Your task to perform on an android device: Open Google Maps Image 0: 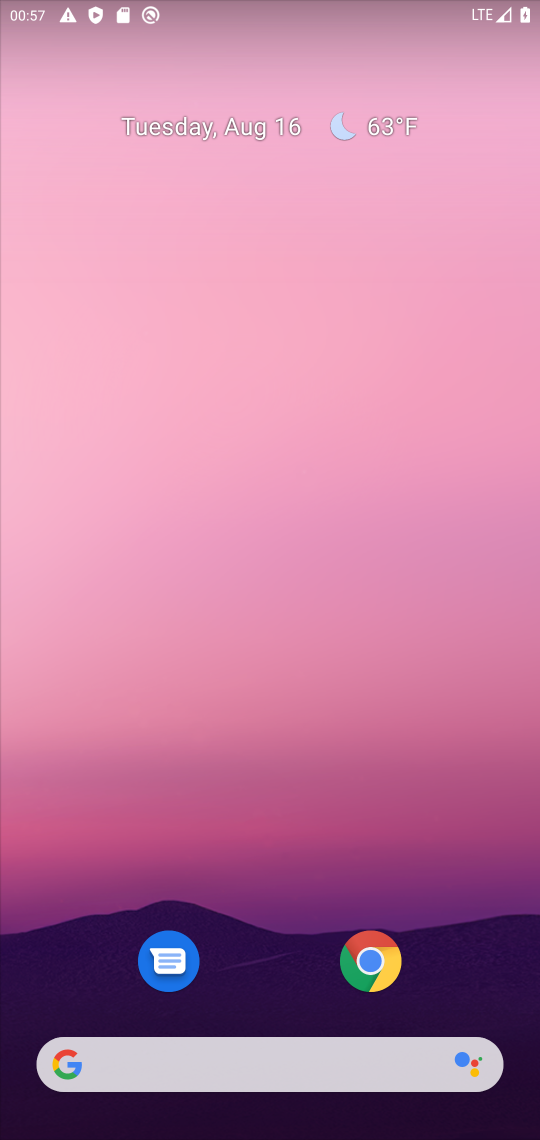
Step 0: press home button
Your task to perform on an android device: Open Google Maps Image 1: 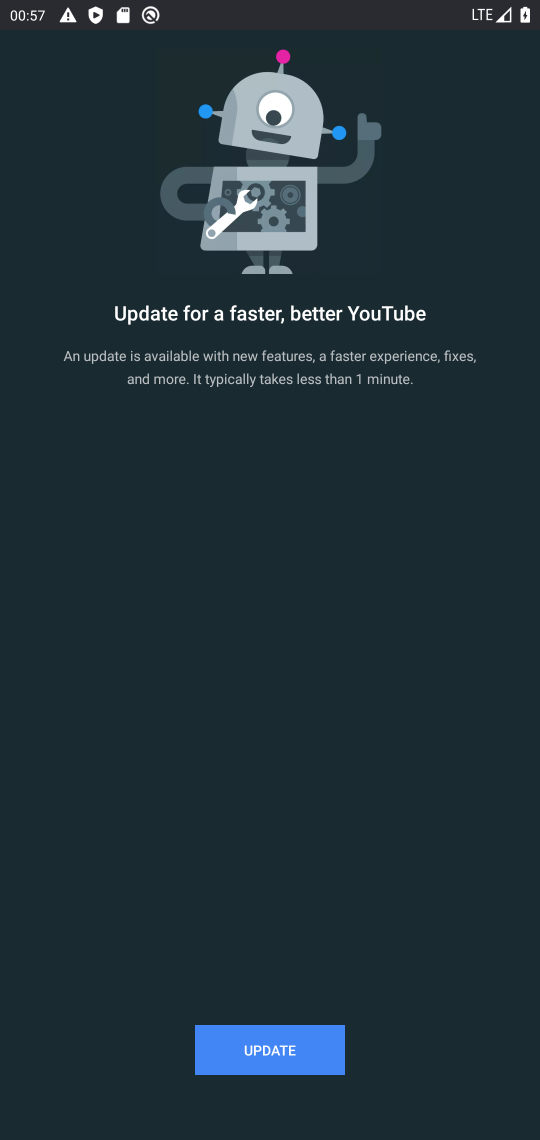
Step 1: press home button
Your task to perform on an android device: Open Google Maps Image 2: 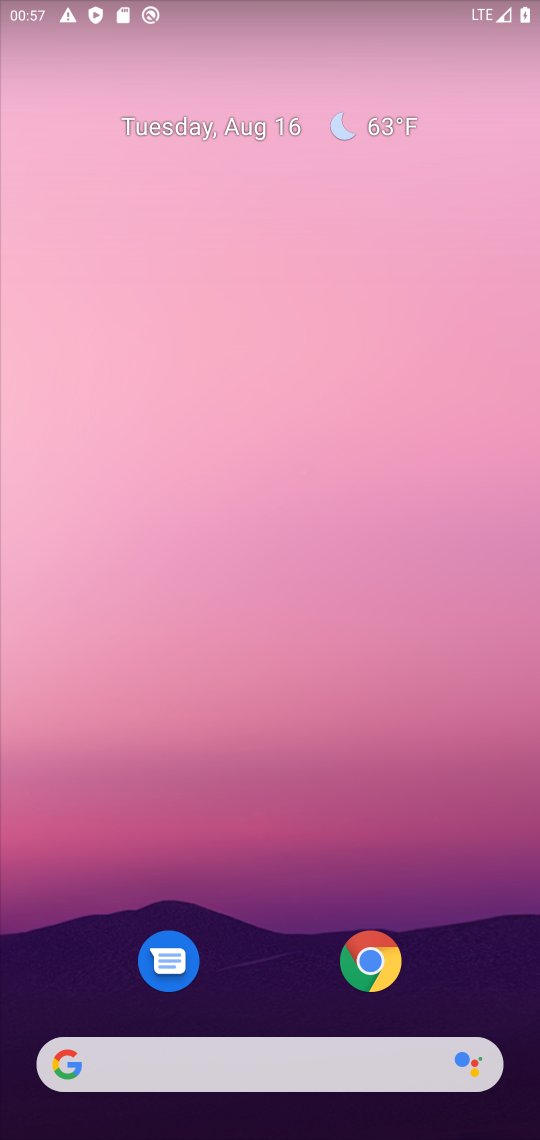
Step 2: press home button
Your task to perform on an android device: Open Google Maps Image 3: 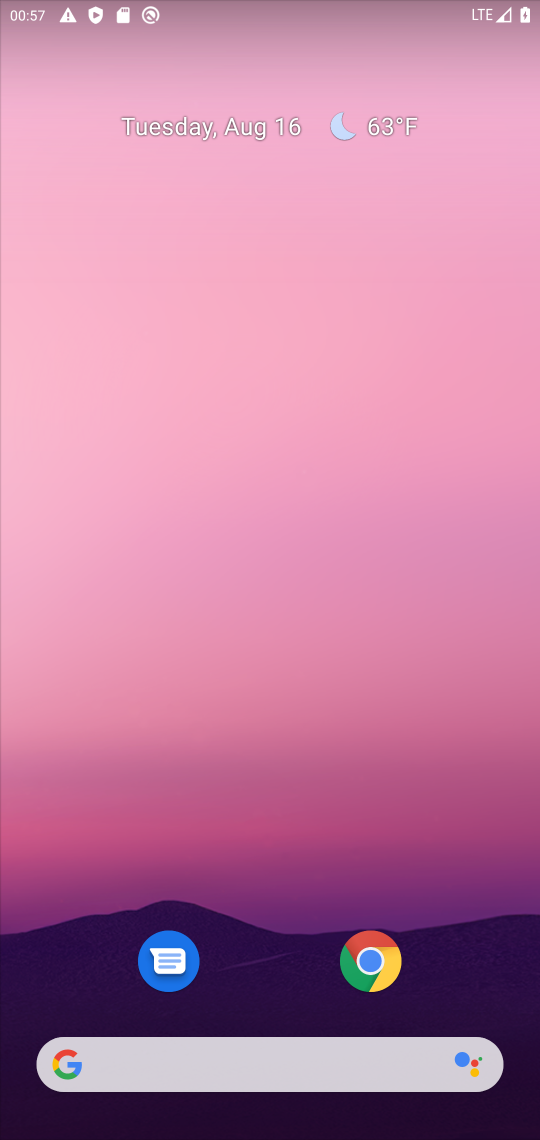
Step 3: drag from (245, 1000) to (288, 24)
Your task to perform on an android device: Open Google Maps Image 4: 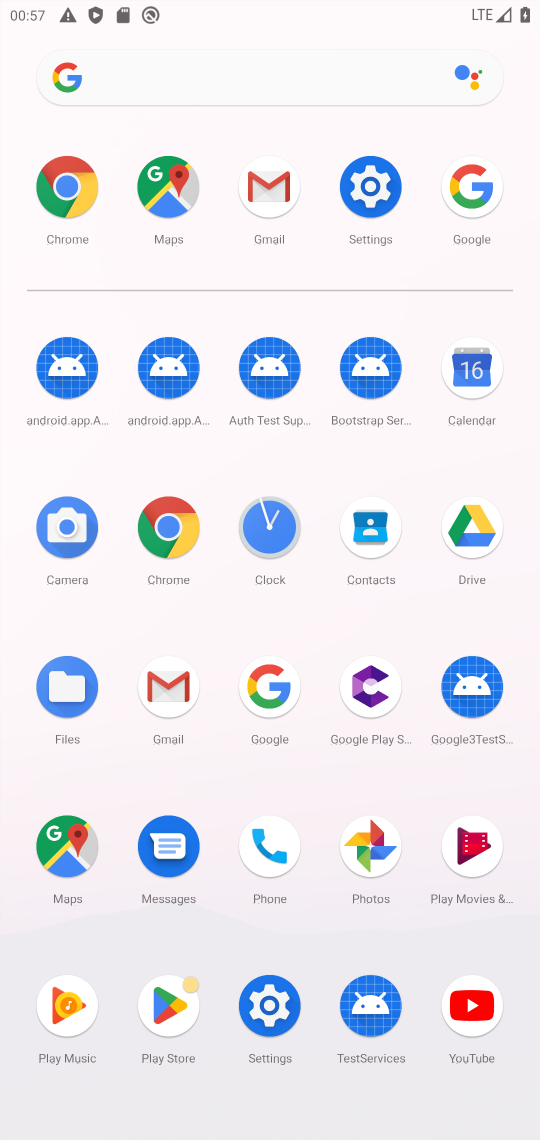
Step 4: click (81, 923)
Your task to perform on an android device: Open Google Maps Image 5: 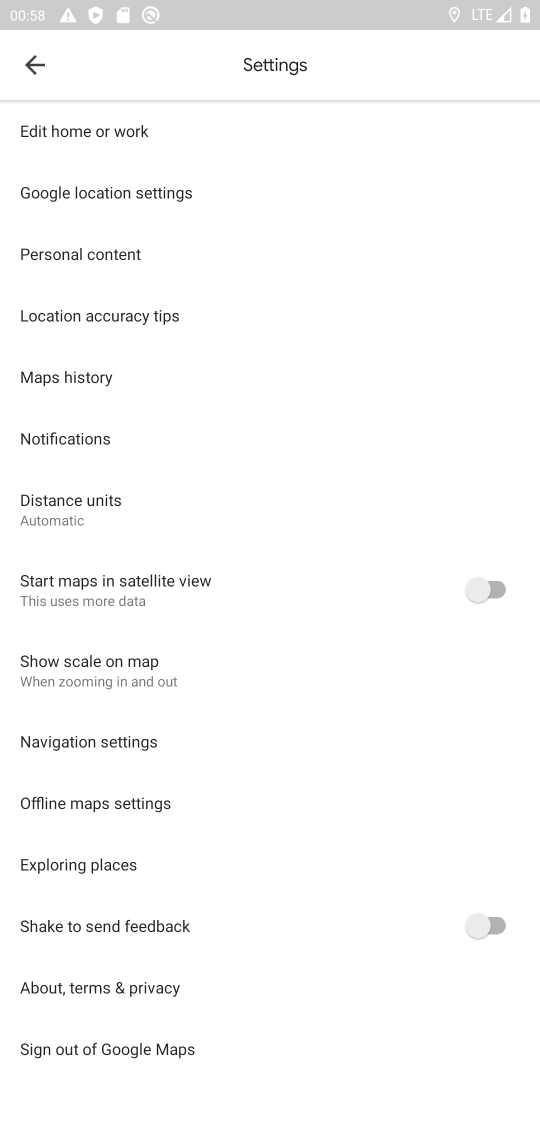
Step 5: task complete